Your task to perform on an android device: Open the phone app and click the voicemail tab. Image 0: 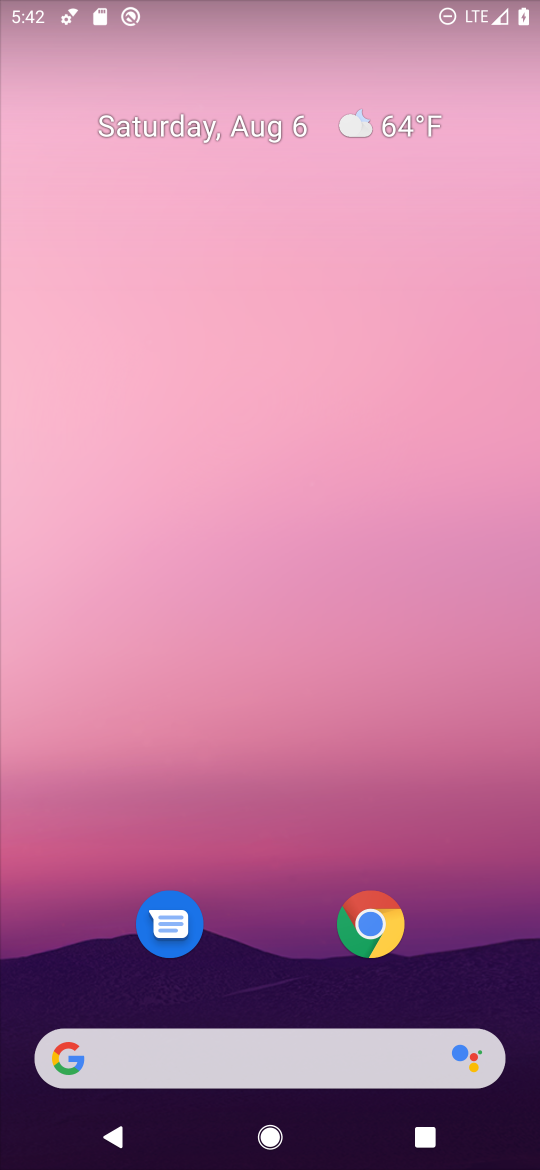
Step 0: drag from (251, 880) to (197, 90)
Your task to perform on an android device: Open the phone app and click the voicemail tab. Image 1: 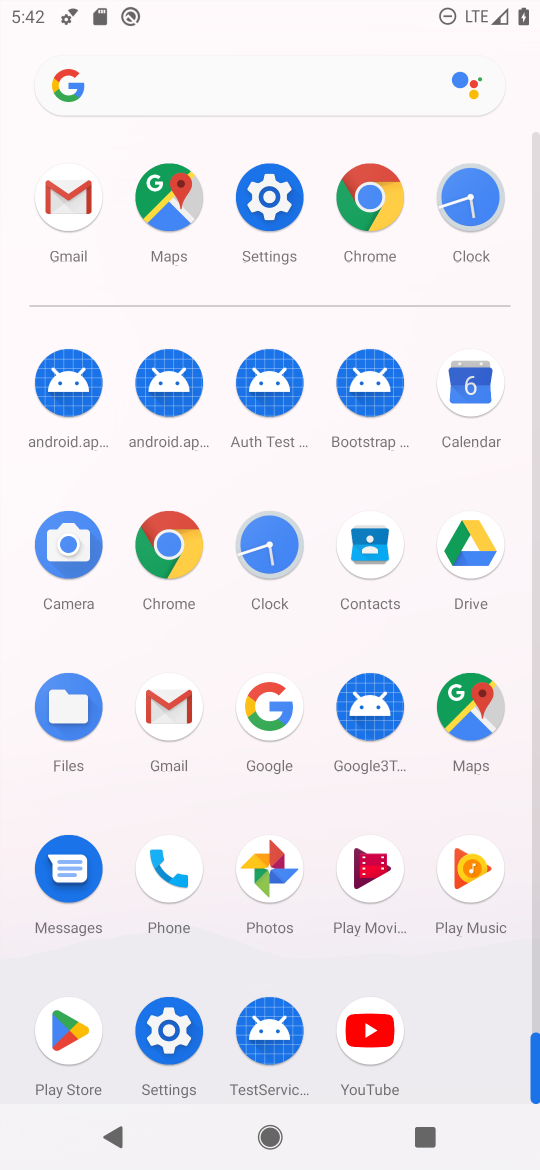
Step 1: click (159, 864)
Your task to perform on an android device: Open the phone app and click the voicemail tab. Image 2: 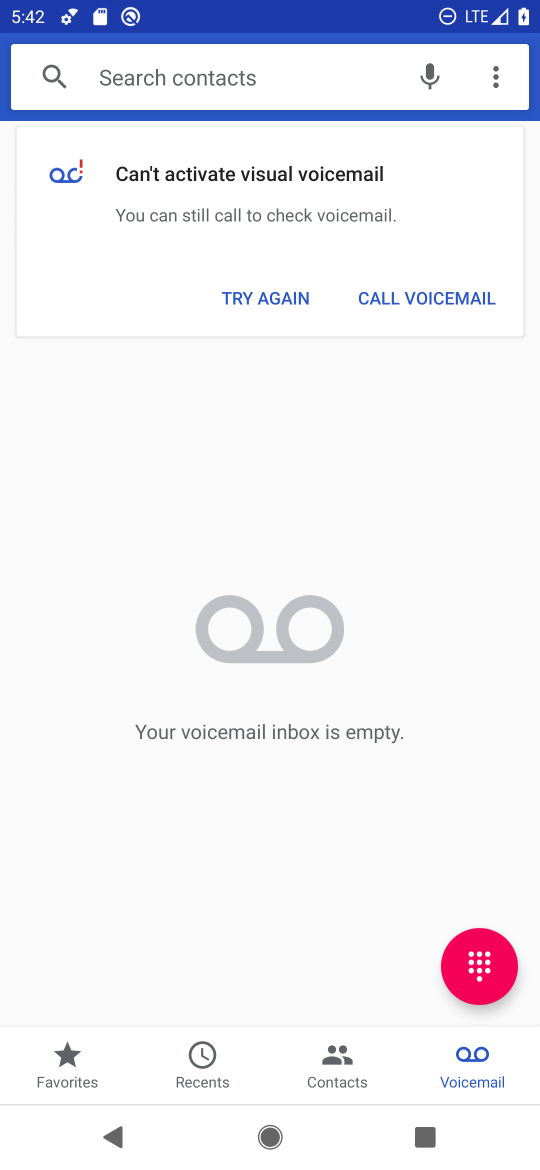
Step 2: click (467, 1056)
Your task to perform on an android device: Open the phone app and click the voicemail tab. Image 3: 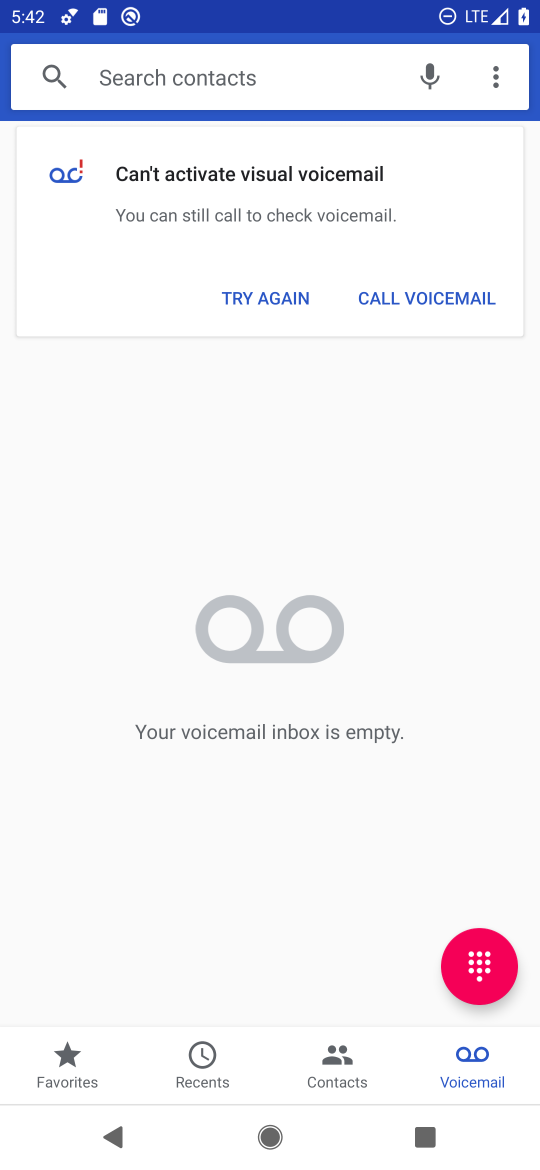
Step 3: task complete